Your task to perform on an android device: turn off notifications settings in the gmail app Image 0: 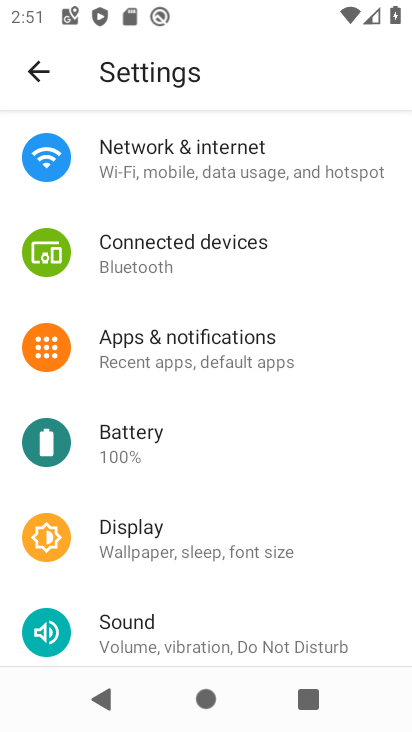
Step 0: press back button
Your task to perform on an android device: turn off notifications settings in the gmail app Image 1: 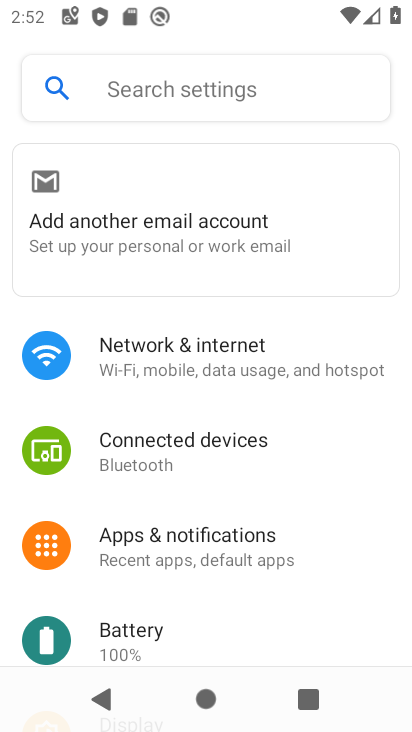
Step 1: press back button
Your task to perform on an android device: turn off notifications settings in the gmail app Image 2: 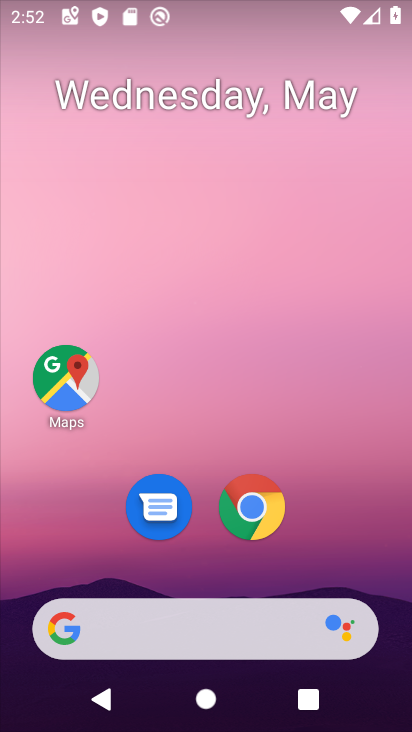
Step 2: drag from (321, 567) to (241, 52)
Your task to perform on an android device: turn off notifications settings in the gmail app Image 3: 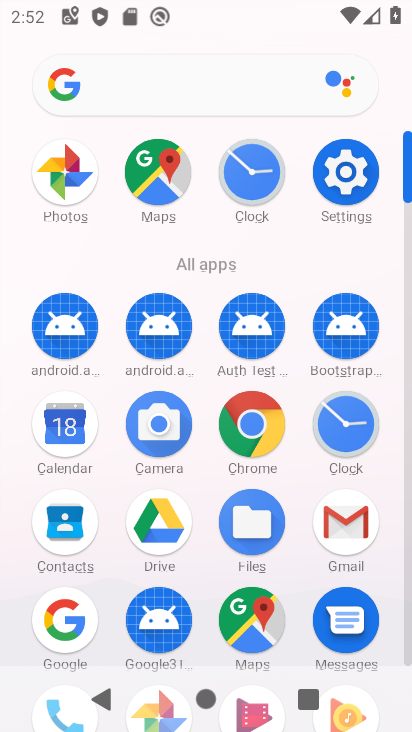
Step 3: click (346, 518)
Your task to perform on an android device: turn off notifications settings in the gmail app Image 4: 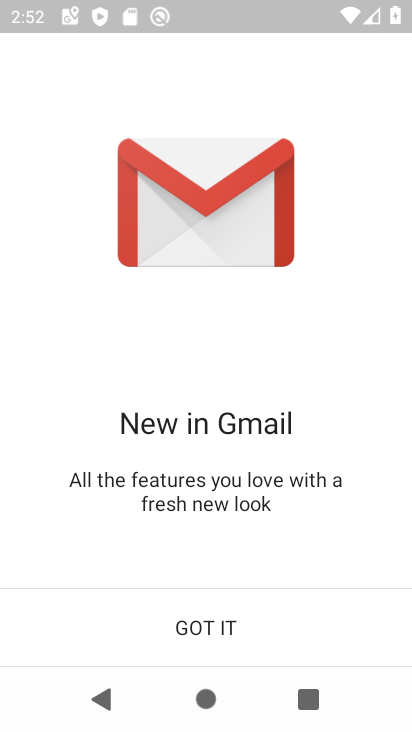
Step 4: click (213, 628)
Your task to perform on an android device: turn off notifications settings in the gmail app Image 5: 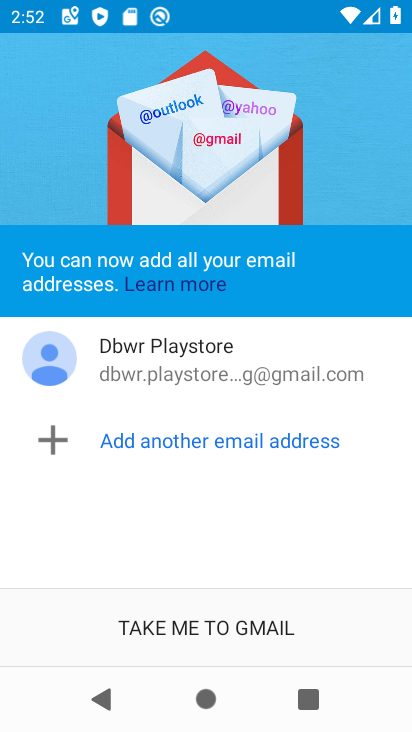
Step 5: click (213, 628)
Your task to perform on an android device: turn off notifications settings in the gmail app Image 6: 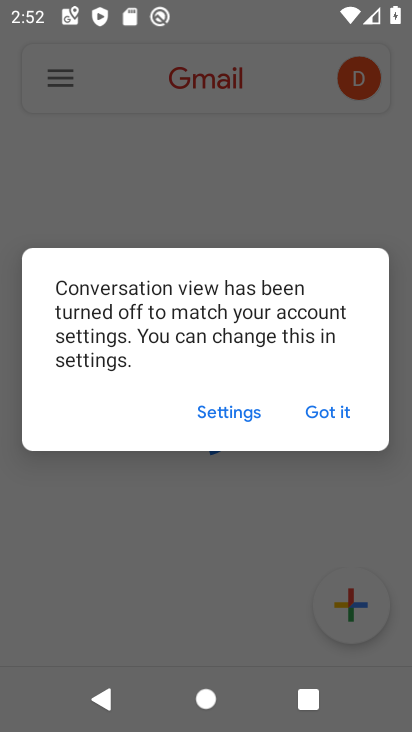
Step 6: click (338, 416)
Your task to perform on an android device: turn off notifications settings in the gmail app Image 7: 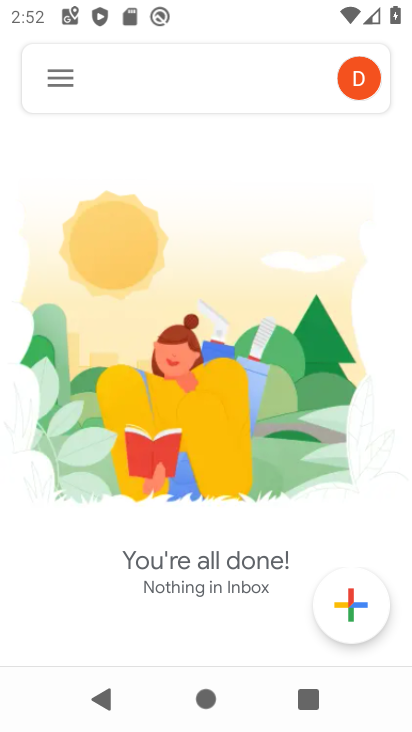
Step 7: click (56, 73)
Your task to perform on an android device: turn off notifications settings in the gmail app Image 8: 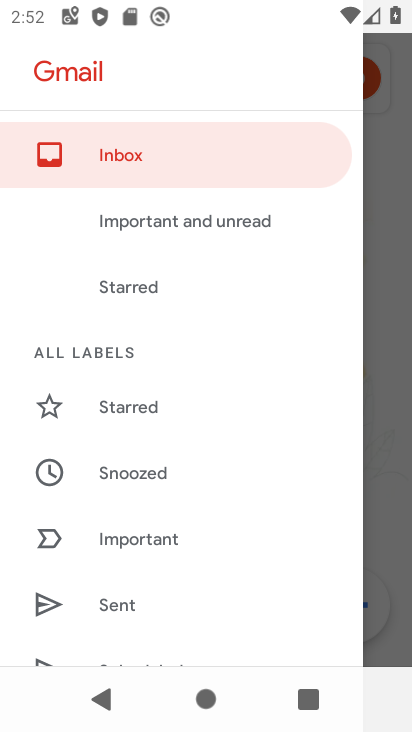
Step 8: drag from (112, 512) to (134, 446)
Your task to perform on an android device: turn off notifications settings in the gmail app Image 9: 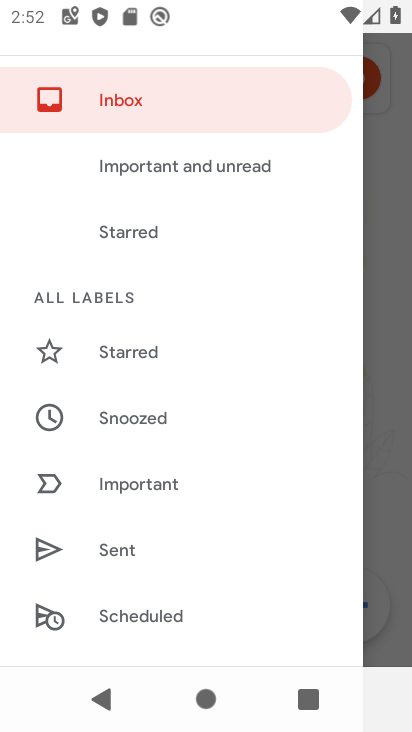
Step 9: drag from (109, 515) to (141, 440)
Your task to perform on an android device: turn off notifications settings in the gmail app Image 10: 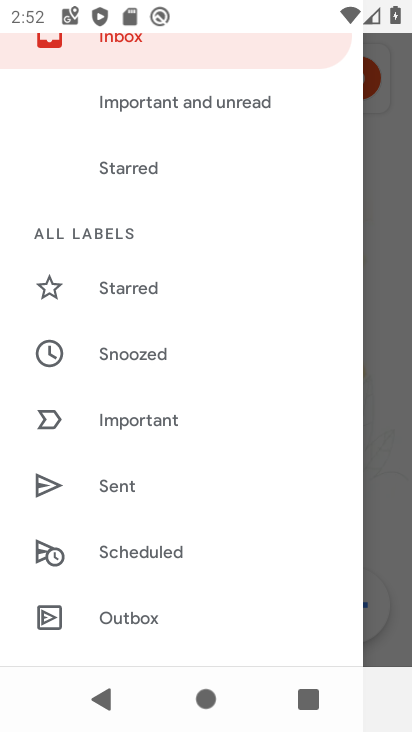
Step 10: drag from (123, 509) to (157, 425)
Your task to perform on an android device: turn off notifications settings in the gmail app Image 11: 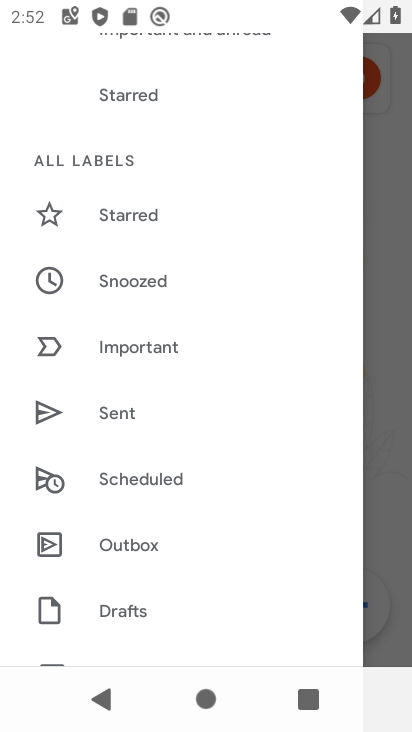
Step 11: drag from (110, 517) to (167, 405)
Your task to perform on an android device: turn off notifications settings in the gmail app Image 12: 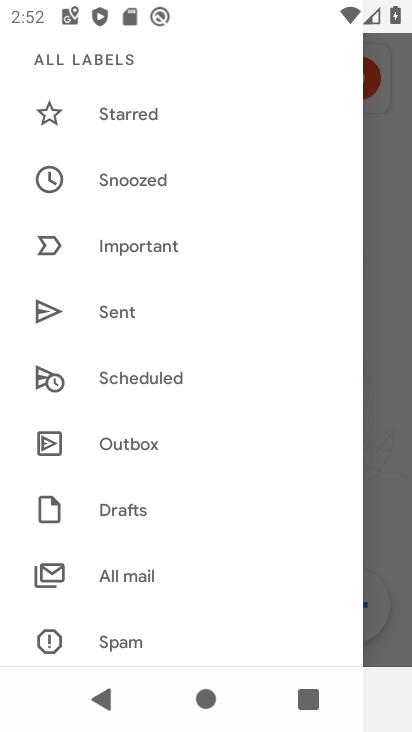
Step 12: drag from (116, 479) to (150, 376)
Your task to perform on an android device: turn off notifications settings in the gmail app Image 13: 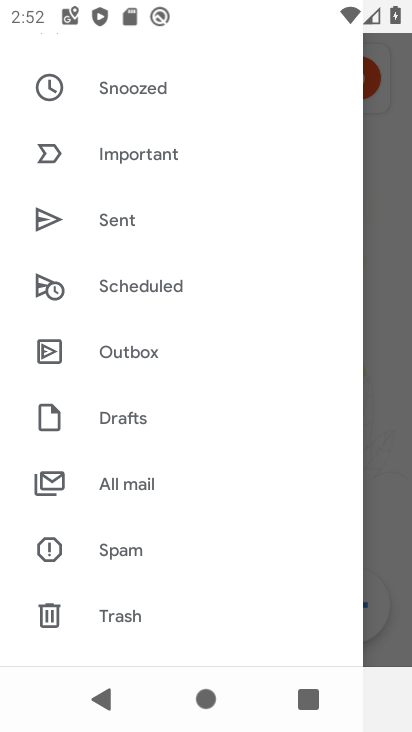
Step 13: drag from (121, 521) to (150, 438)
Your task to perform on an android device: turn off notifications settings in the gmail app Image 14: 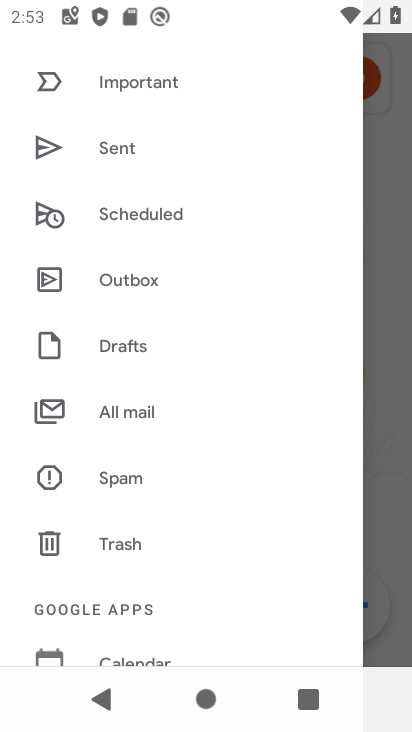
Step 14: drag from (111, 514) to (147, 434)
Your task to perform on an android device: turn off notifications settings in the gmail app Image 15: 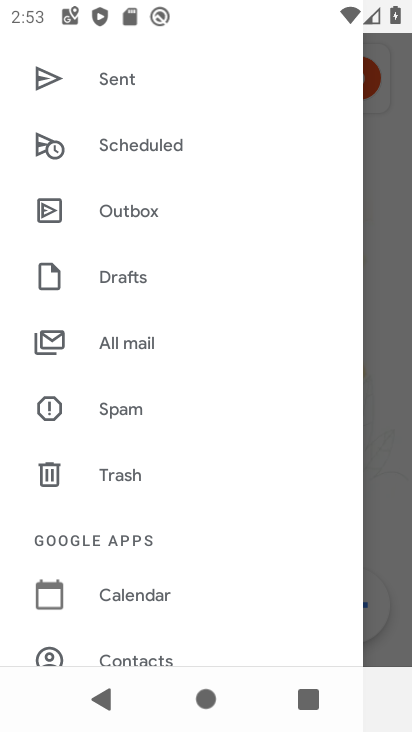
Step 15: drag from (108, 567) to (168, 460)
Your task to perform on an android device: turn off notifications settings in the gmail app Image 16: 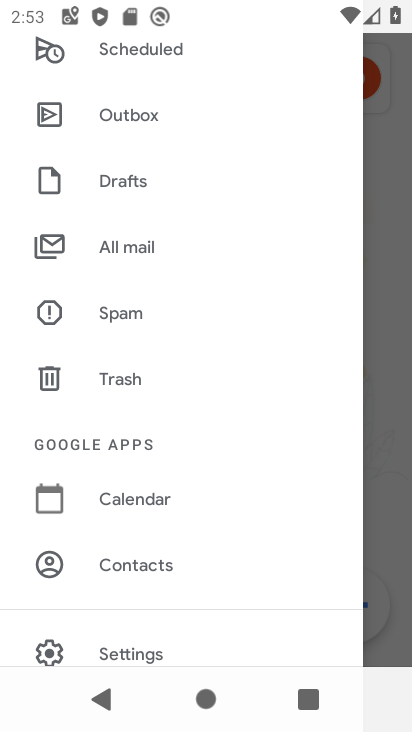
Step 16: drag from (135, 523) to (179, 441)
Your task to perform on an android device: turn off notifications settings in the gmail app Image 17: 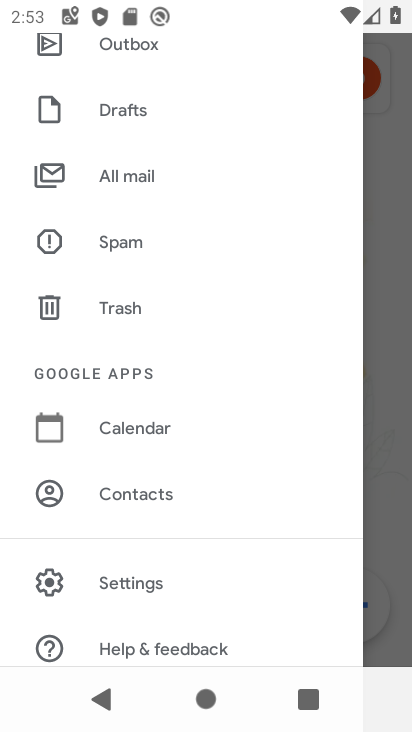
Step 17: click (135, 575)
Your task to perform on an android device: turn off notifications settings in the gmail app Image 18: 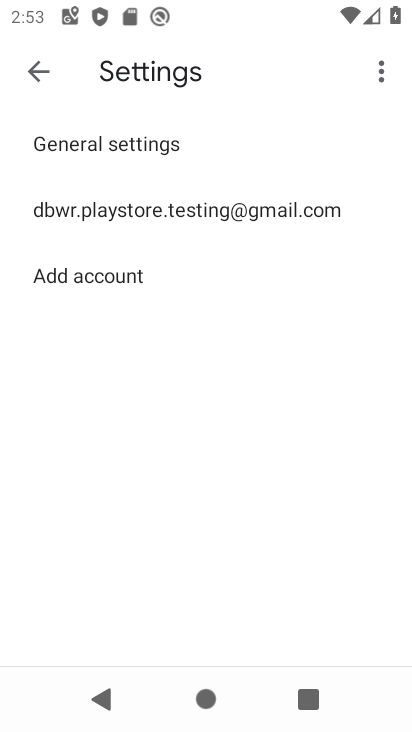
Step 18: click (159, 213)
Your task to perform on an android device: turn off notifications settings in the gmail app Image 19: 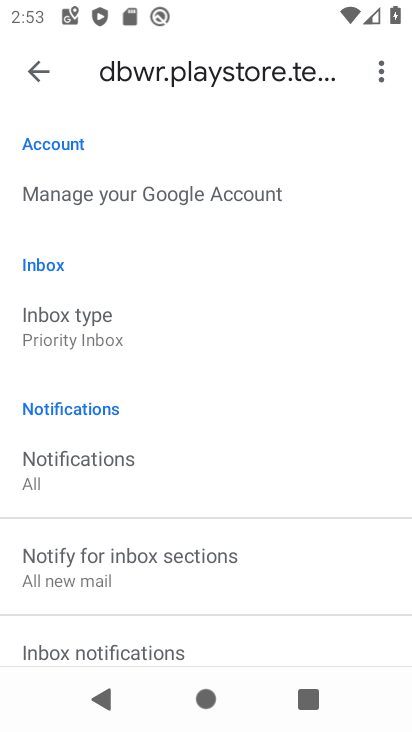
Step 19: drag from (165, 486) to (207, 371)
Your task to perform on an android device: turn off notifications settings in the gmail app Image 20: 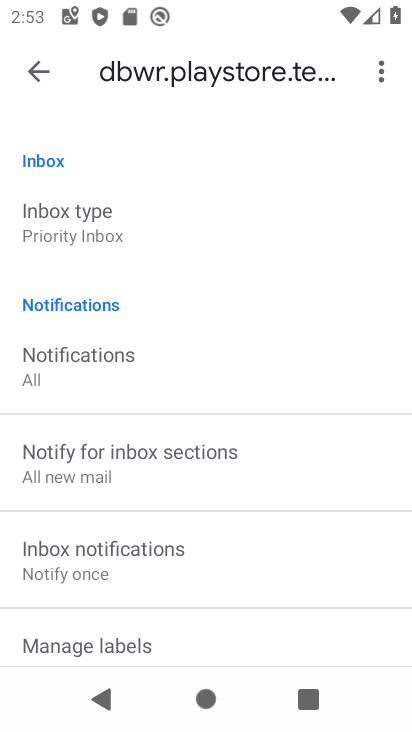
Step 20: drag from (172, 569) to (207, 468)
Your task to perform on an android device: turn off notifications settings in the gmail app Image 21: 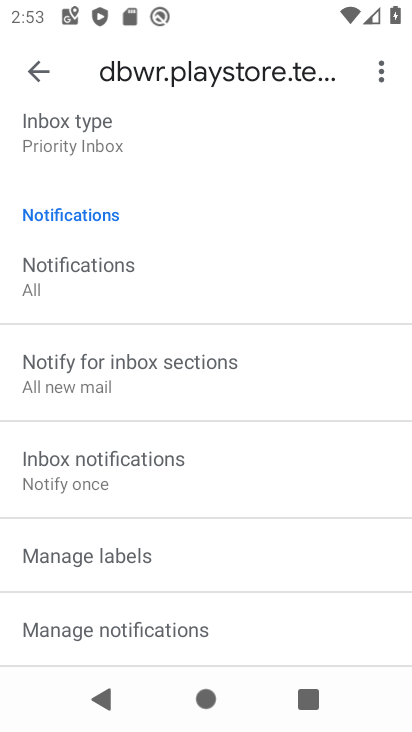
Step 21: click (135, 627)
Your task to perform on an android device: turn off notifications settings in the gmail app Image 22: 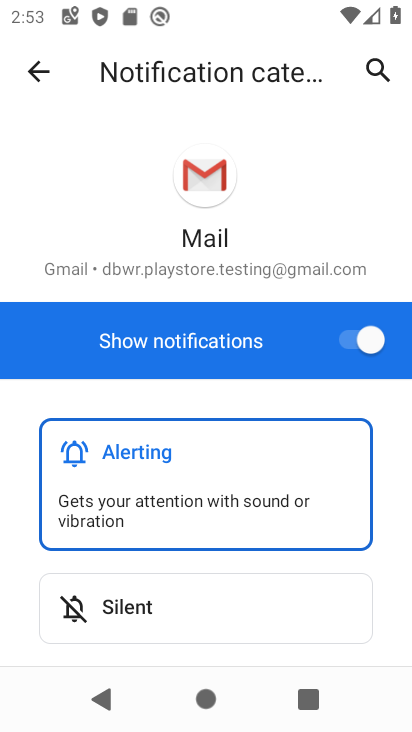
Step 22: click (356, 340)
Your task to perform on an android device: turn off notifications settings in the gmail app Image 23: 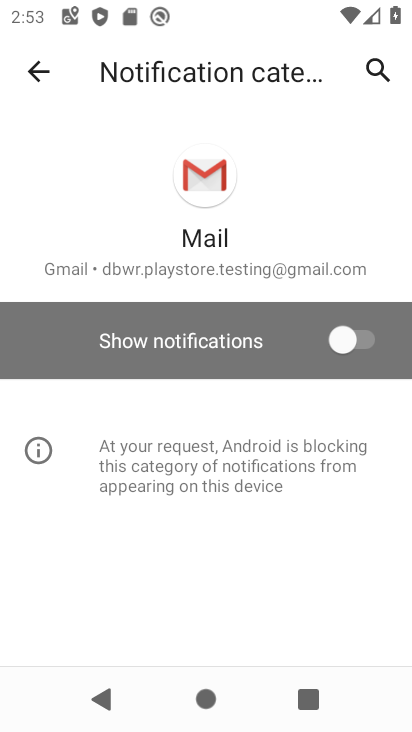
Step 23: task complete